Your task to perform on an android device: What's the weather going to be this weekend? Image 0: 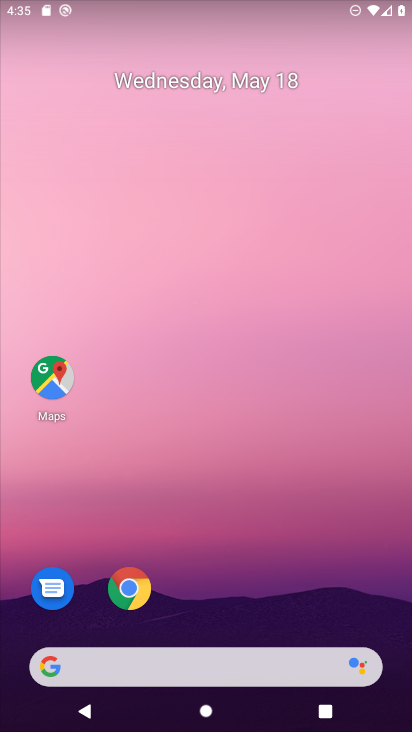
Step 0: click (260, 616)
Your task to perform on an android device: What's the weather going to be this weekend? Image 1: 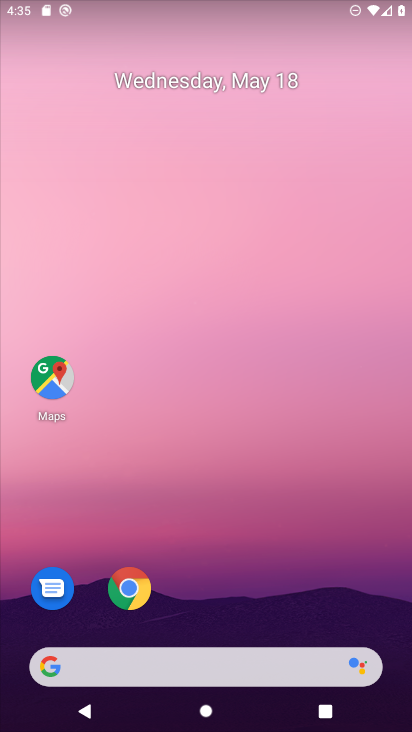
Step 1: click (219, 661)
Your task to perform on an android device: What's the weather going to be this weekend? Image 2: 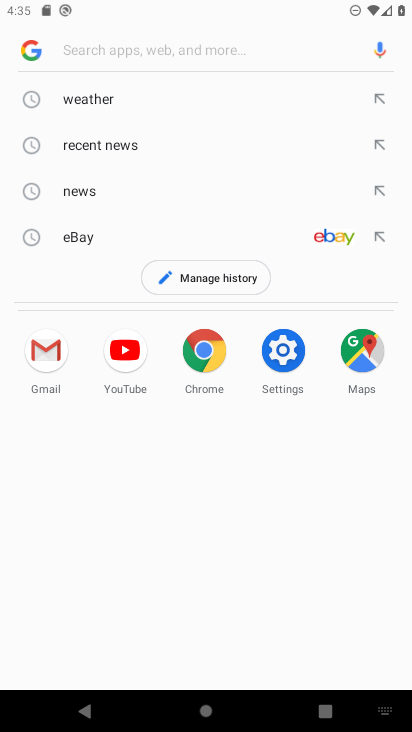
Step 2: click (129, 100)
Your task to perform on an android device: What's the weather going to be this weekend? Image 3: 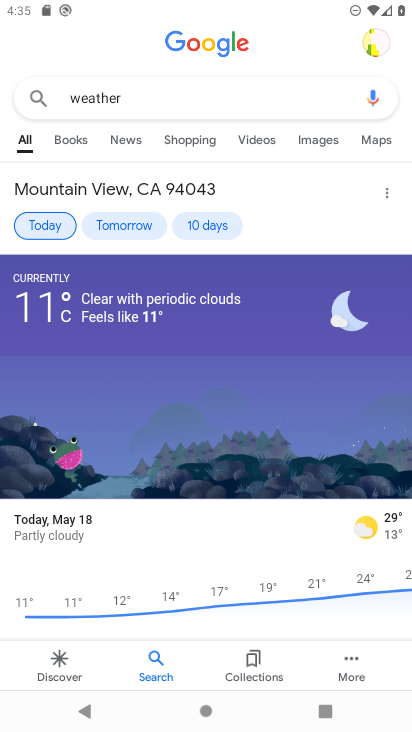
Step 3: click (207, 222)
Your task to perform on an android device: What's the weather going to be this weekend? Image 4: 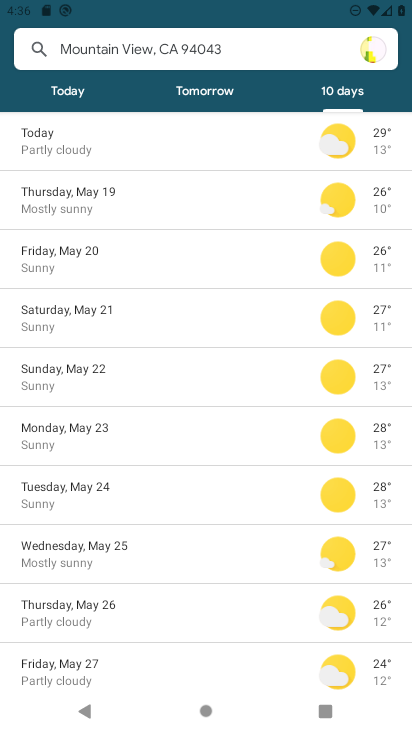
Step 4: task complete